Your task to perform on an android device: Open notification settings Image 0: 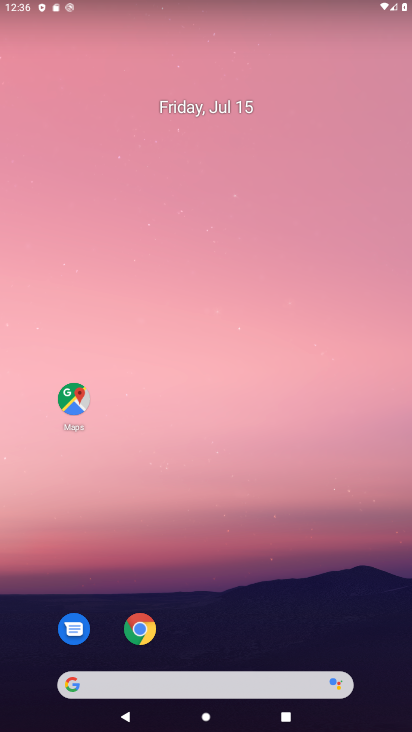
Step 0: drag from (253, 607) to (276, 137)
Your task to perform on an android device: Open notification settings Image 1: 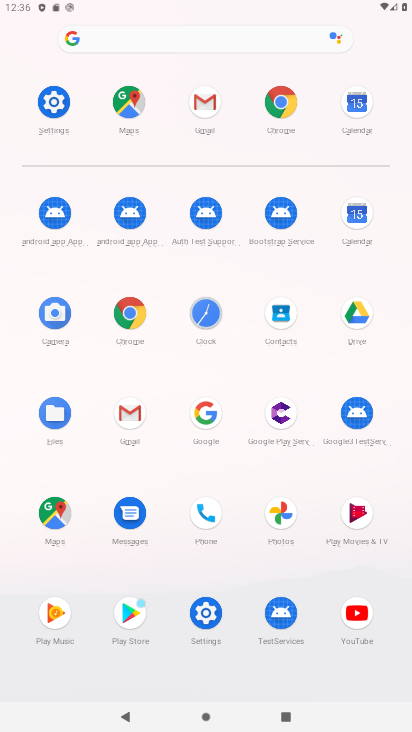
Step 1: click (49, 106)
Your task to perform on an android device: Open notification settings Image 2: 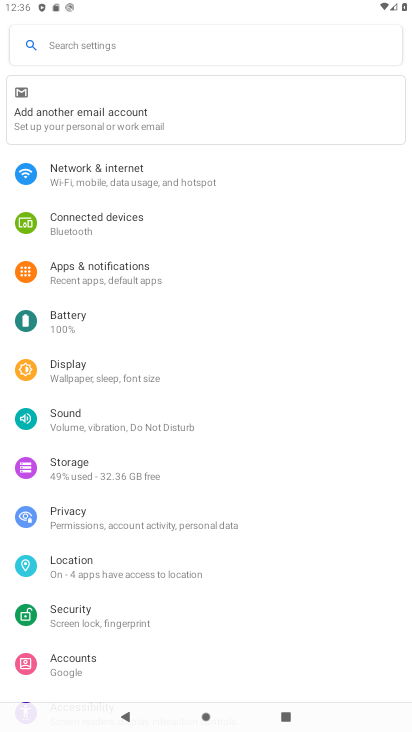
Step 2: click (109, 288)
Your task to perform on an android device: Open notification settings Image 3: 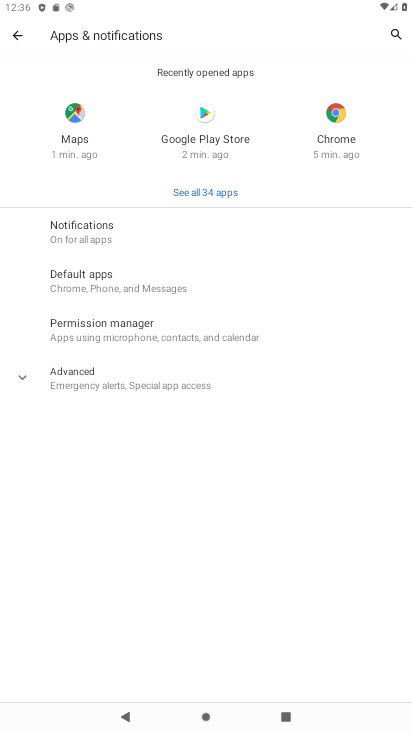
Step 3: click (110, 237)
Your task to perform on an android device: Open notification settings Image 4: 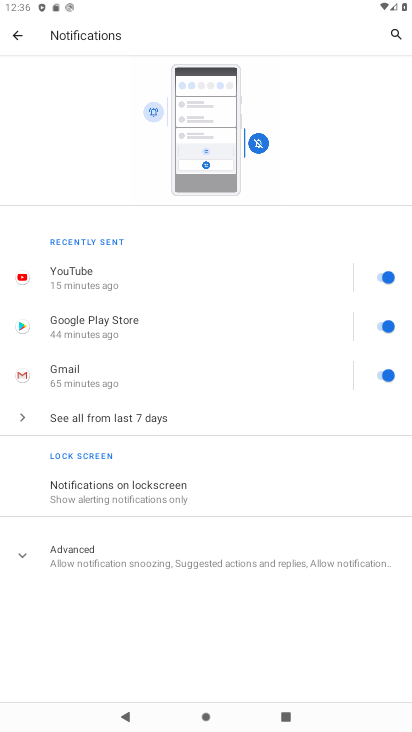
Step 4: task complete